Your task to perform on an android device: see creations saved in the google photos Image 0: 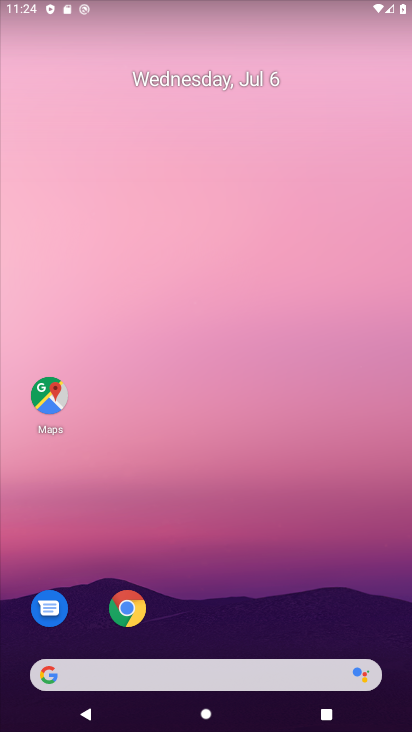
Step 0: drag from (171, 623) to (197, 65)
Your task to perform on an android device: see creations saved in the google photos Image 1: 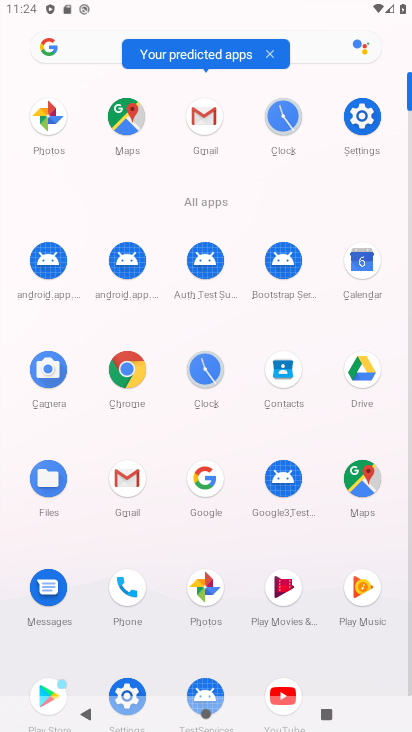
Step 1: click (209, 592)
Your task to perform on an android device: see creations saved in the google photos Image 2: 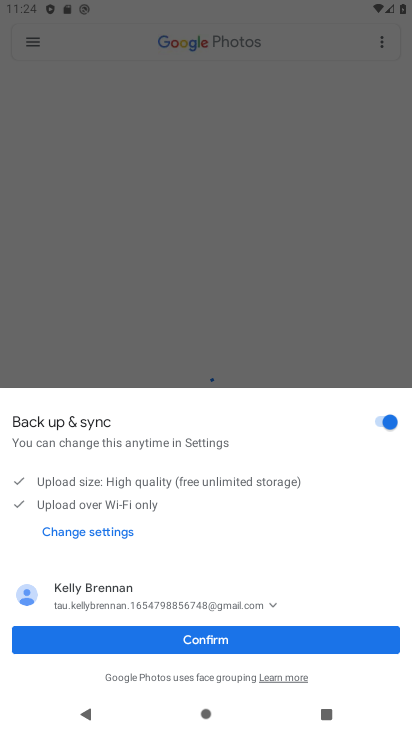
Step 2: click (196, 641)
Your task to perform on an android device: see creations saved in the google photos Image 3: 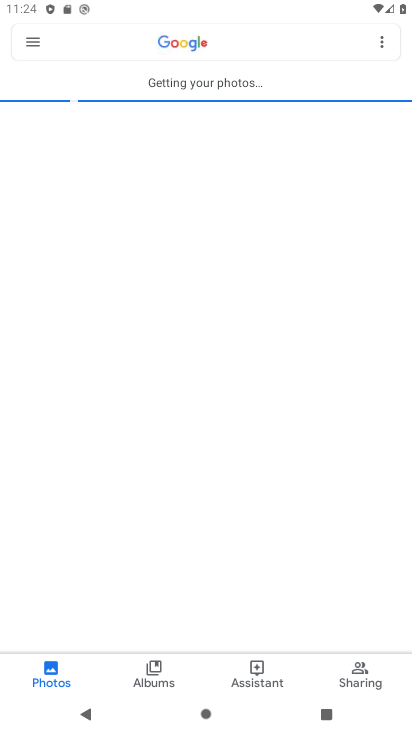
Step 3: click (158, 668)
Your task to perform on an android device: see creations saved in the google photos Image 4: 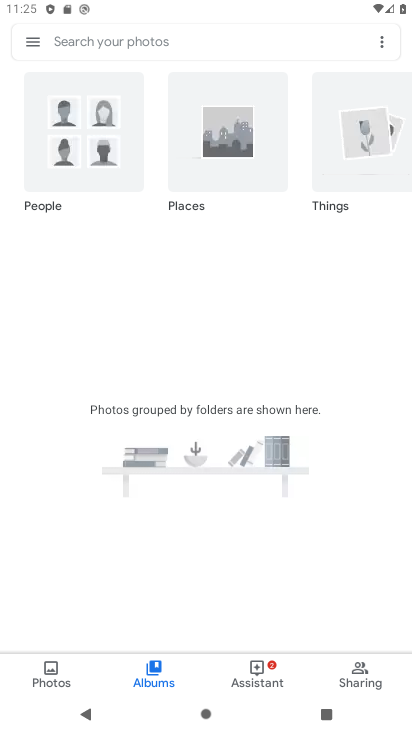
Step 4: task complete